Your task to perform on an android device: What's the weather going to be this weekend? Image 0: 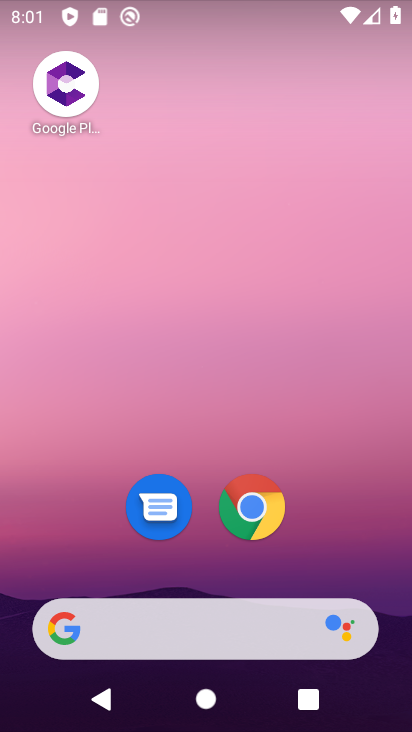
Step 0: click (241, 496)
Your task to perform on an android device: What's the weather going to be this weekend? Image 1: 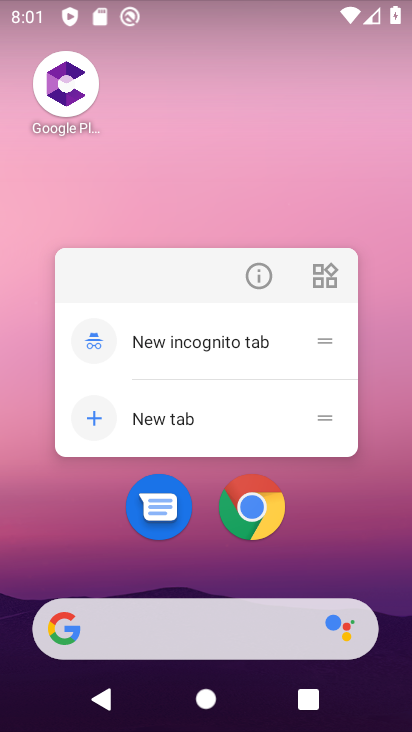
Step 1: click (258, 509)
Your task to perform on an android device: What's the weather going to be this weekend? Image 2: 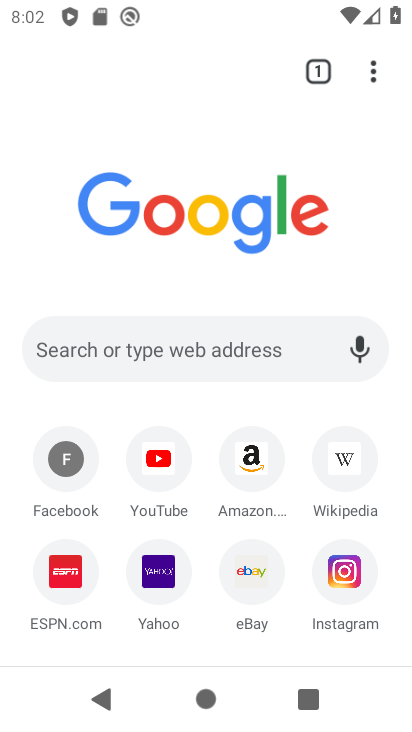
Step 2: click (171, 367)
Your task to perform on an android device: What's the weather going to be this weekend? Image 3: 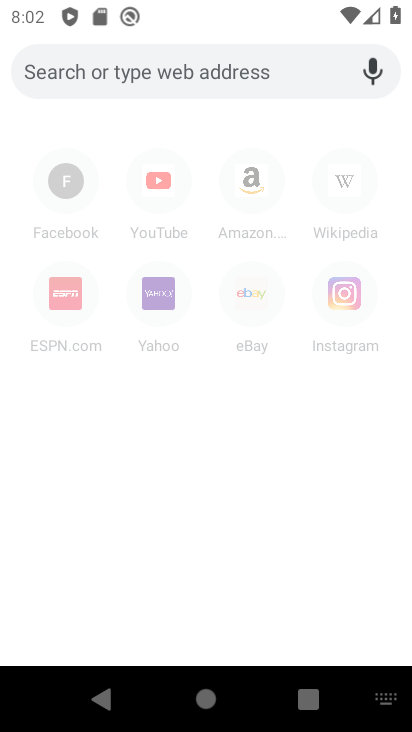
Step 3: type "What's the weather going to be this weekend?"
Your task to perform on an android device: What's the weather going to be this weekend? Image 4: 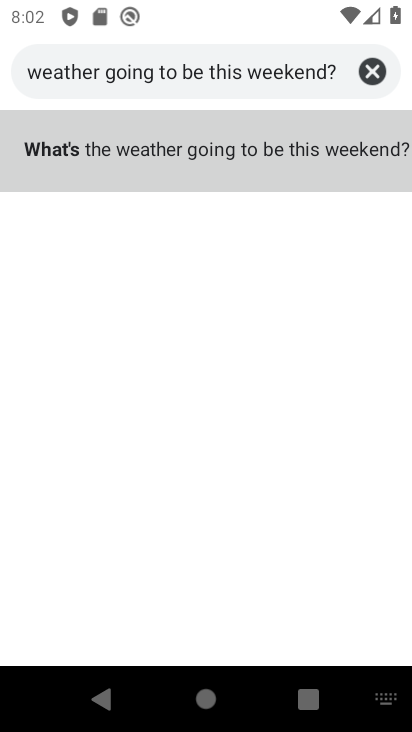
Step 4: click (297, 165)
Your task to perform on an android device: What's the weather going to be this weekend? Image 5: 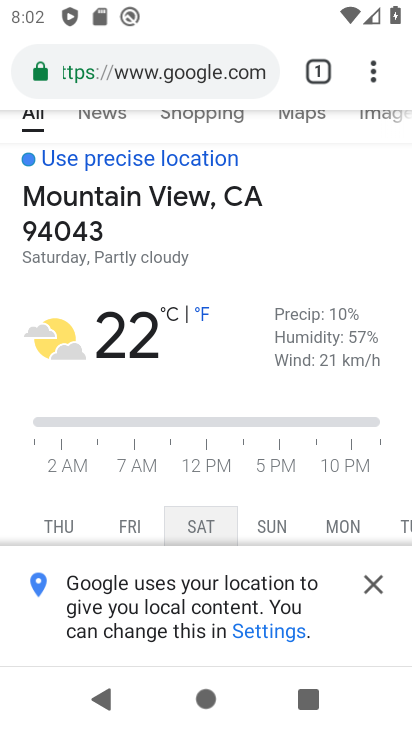
Step 5: task complete